Your task to perform on an android device: add a contact Image 0: 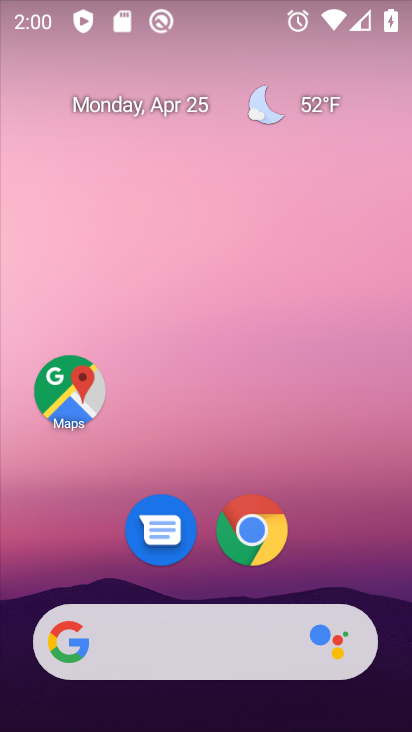
Step 0: drag from (381, 575) to (408, 164)
Your task to perform on an android device: add a contact Image 1: 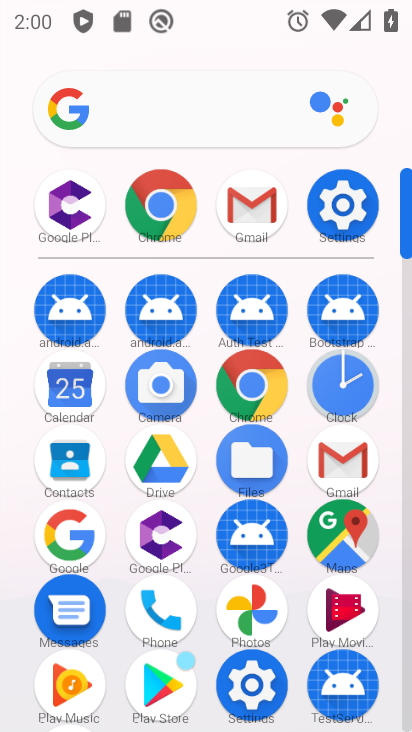
Step 1: click (64, 464)
Your task to perform on an android device: add a contact Image 2: 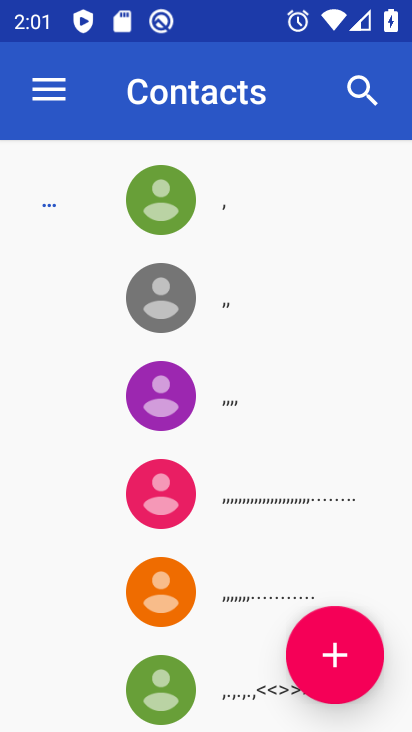
Step 2: click (350, 654)
Your task to perform on an android device: add a contact Image 3: 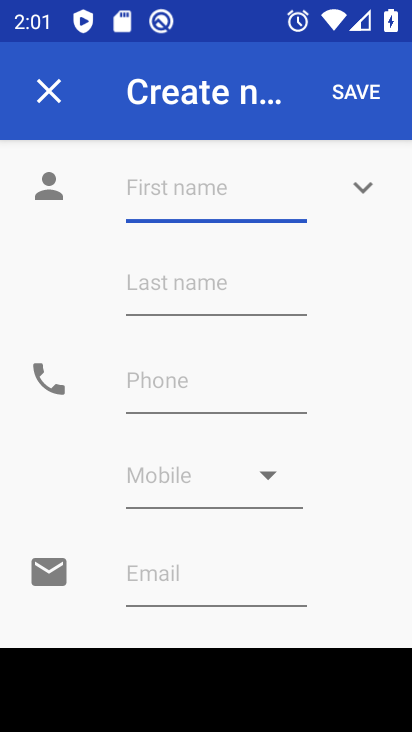
Step 3: type "lokesh rai"
Your task to perform on an android device: add a contact Image 4: 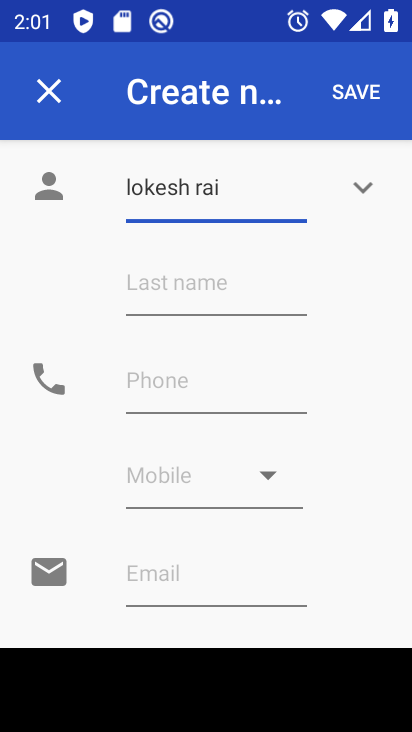
Step 4: click (148, 395)
Your task to perform on an android device: add a contact Image 5: 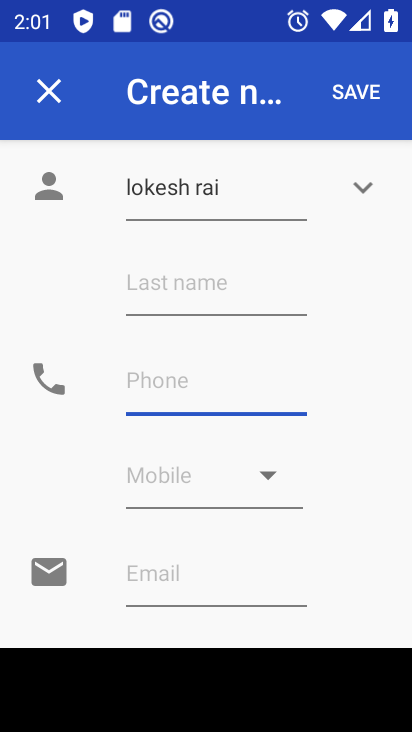
Step 5: type "8493839384"
Your task to perform on an android device: add a contact Image 6: 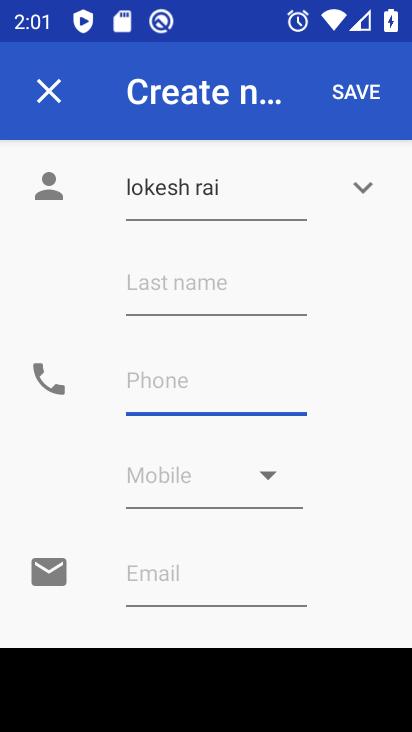
Step 6: click (335, 101)
Your task to perform on an android device: add a contact Image 7: 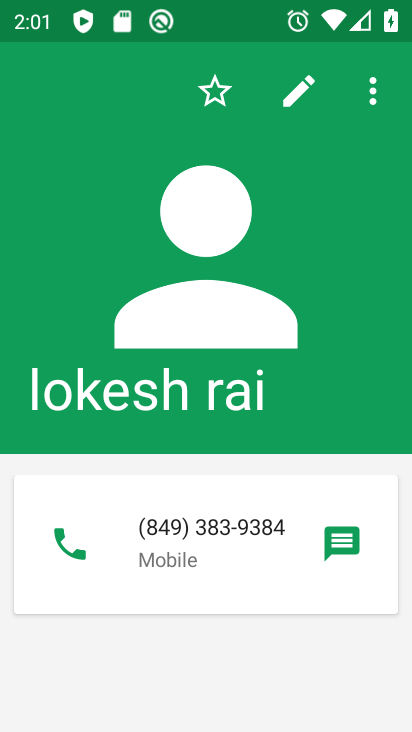
Step 7: task complete